Your task to perform on an android device: Open Chrome and go to settings Image 0: 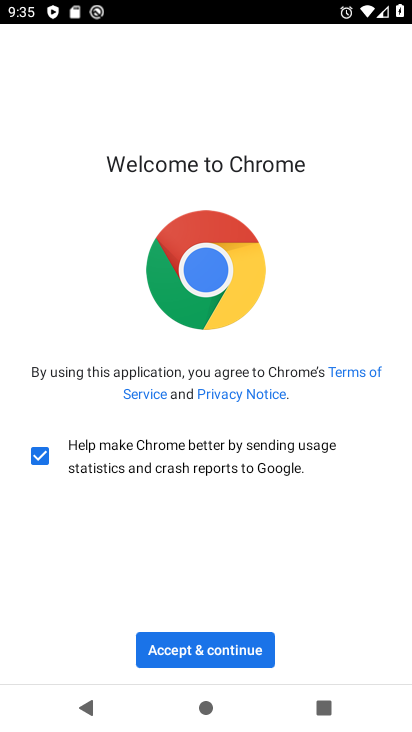
Step 0: press home button
Your task to perform on an android device: Open Chrome and go to settings Image 1: 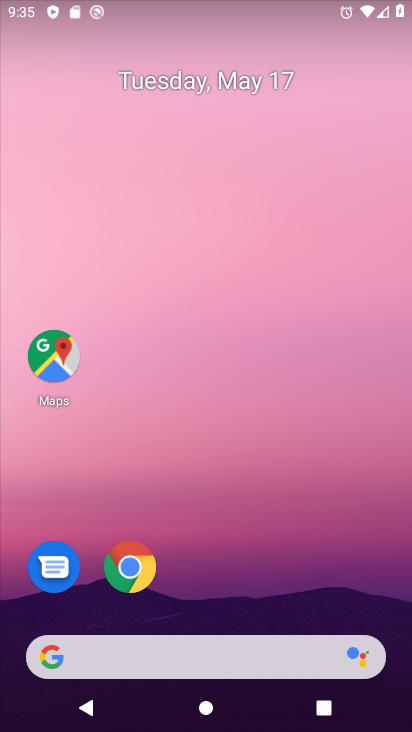
Step 1: click (137, 583)
Your task to perform on an android device: Open Chrome and go to settings Image 2: 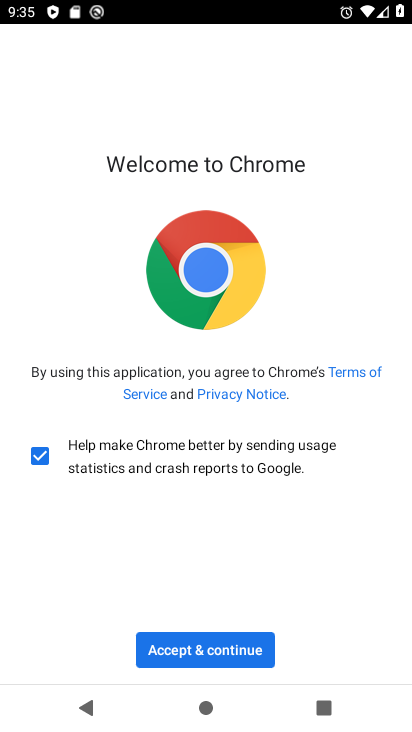
Step 2: click (183, 647)
Your task to perform on an android device: Open Chrome and go to settings Image 3: 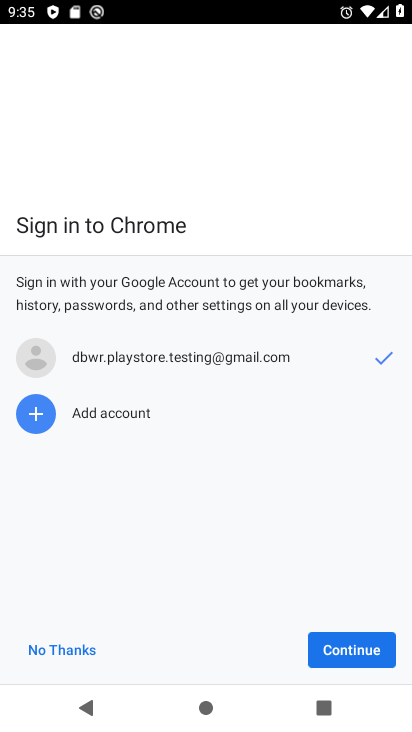
Step 3: click (325, 656)
Your task to perform on an android device: Open Chrome and go to settings Image 4: 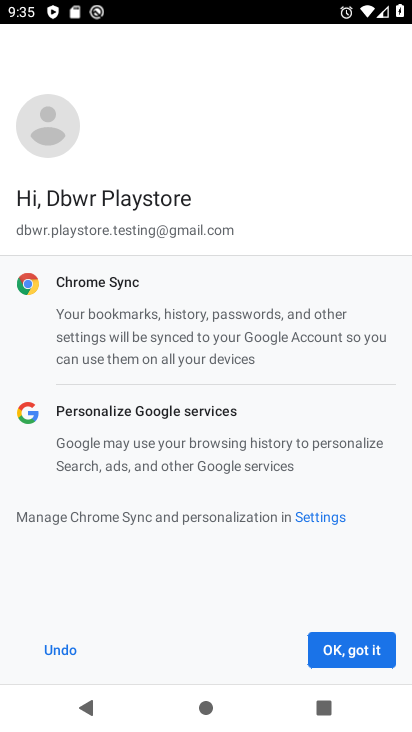
Step 4: click (345, 653)
Your task to perform on an android device: Open Chrome and go to settings Image 5: 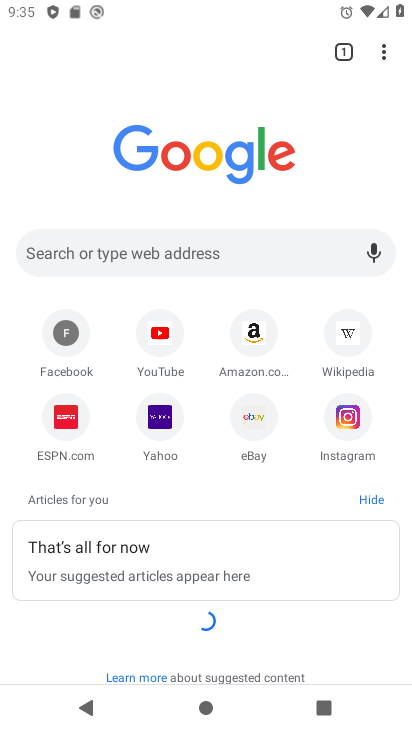
Step 5: click (383, 45)
Your task to perform on an android device: Open Chrome and go to settings Image 6: 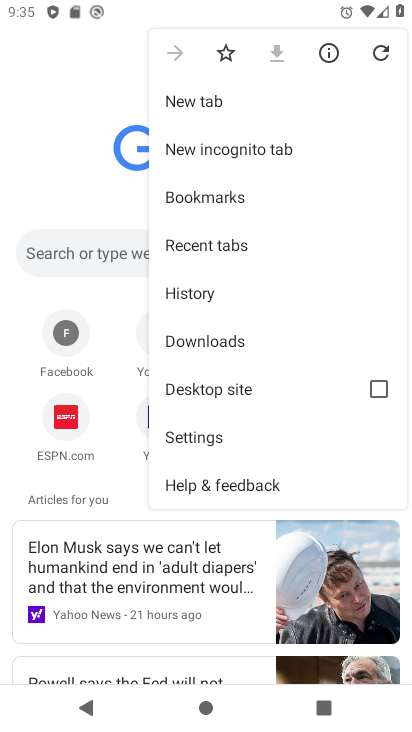
Step 6: click (222, 438)
Your task to perform on an android device: Open Chrome and go to settings Image 7: 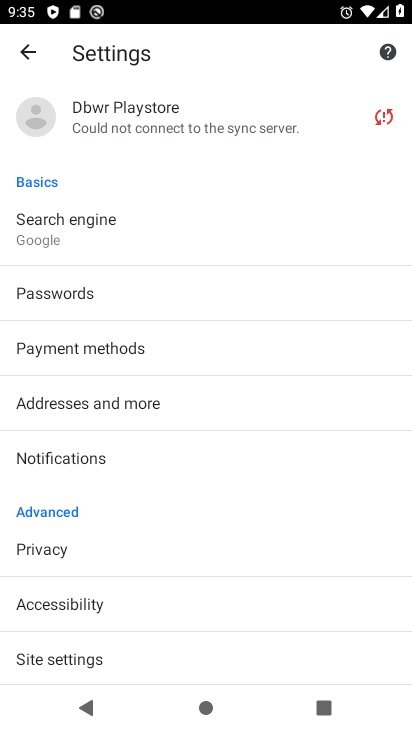
Step 7: task complete